Your task to perform on an android device: Open calendar and show me the second week of next month Image 0: 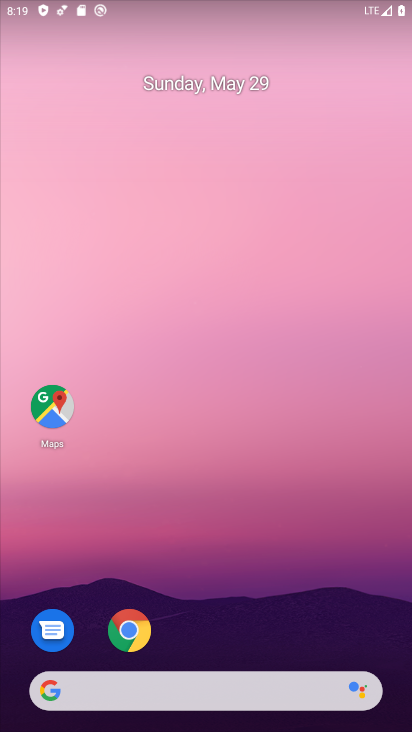
Step 0: drag from (194, 662) to (168, 46)
Your task to perform on an android device: Open calendar and show me the second week of next month Image 1: 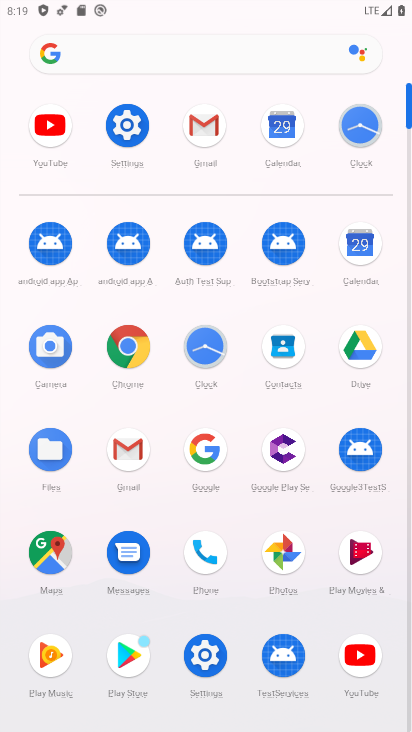
Step 1: click (371, 251)
Your task to perform on an android device: Open calendar and show me the second week of next month Image 2: 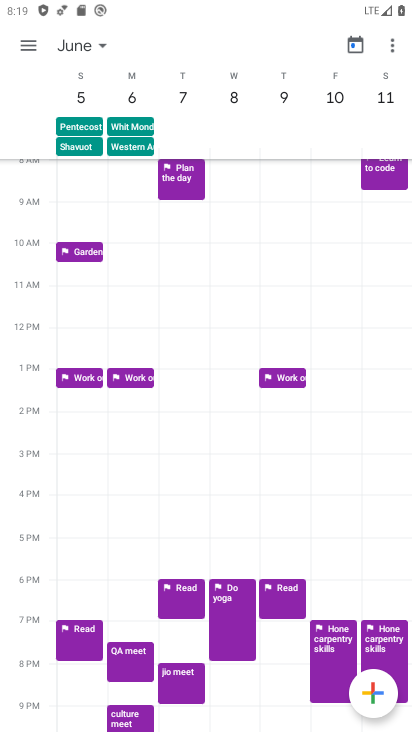
Step 2: task complete